Your task to perform on an android device: find which apps use the phone's location Image 0: 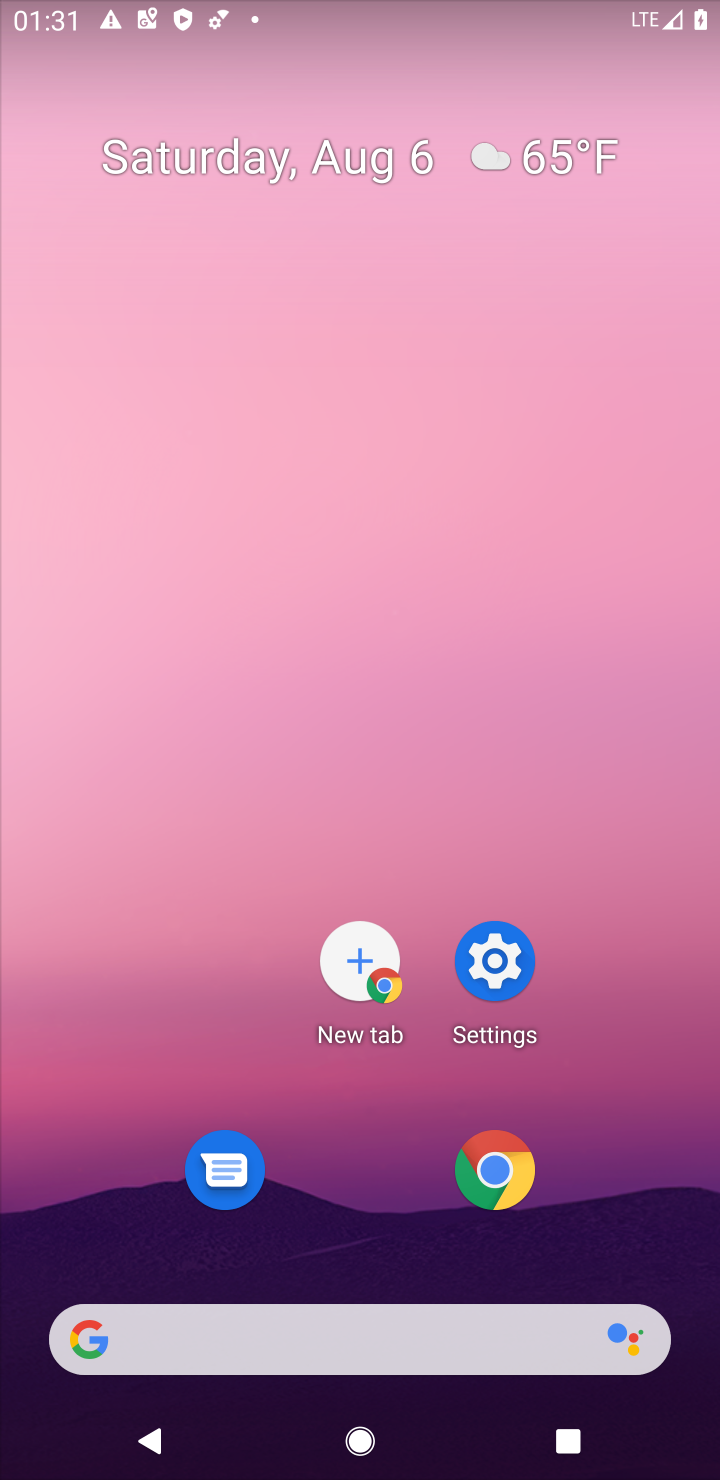
Step 0: task impossible